Your task to perform on an android device: What is the news today? Image 0: 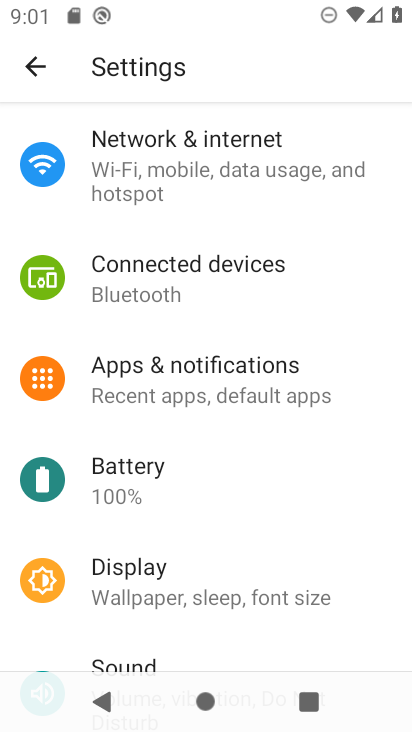
Step 0: press home button
Your task to perform on an android device: What is the news today? Image 1: 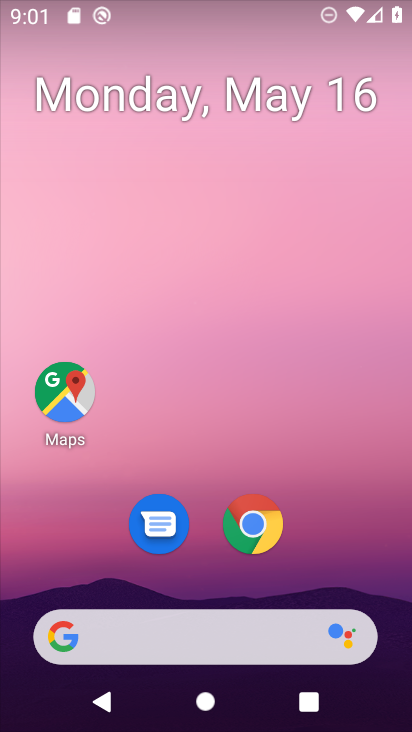
Step 1: click (196, 627)
Your task to perform on an android device: What is the news today? Image 2: 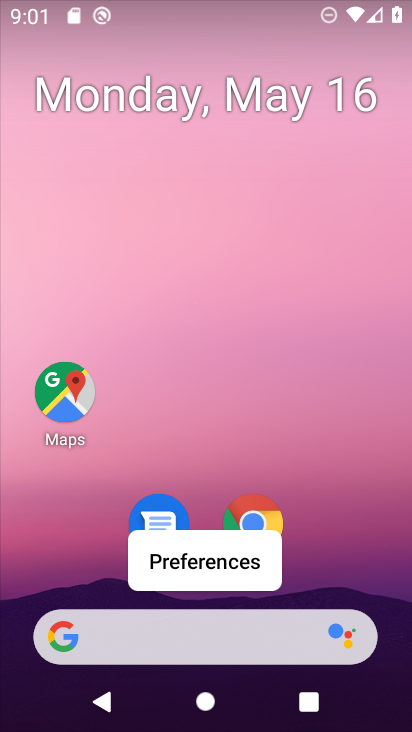
Step 2: click (196, 646)
Your task to perform on an android device: What is the news today? Image 3: 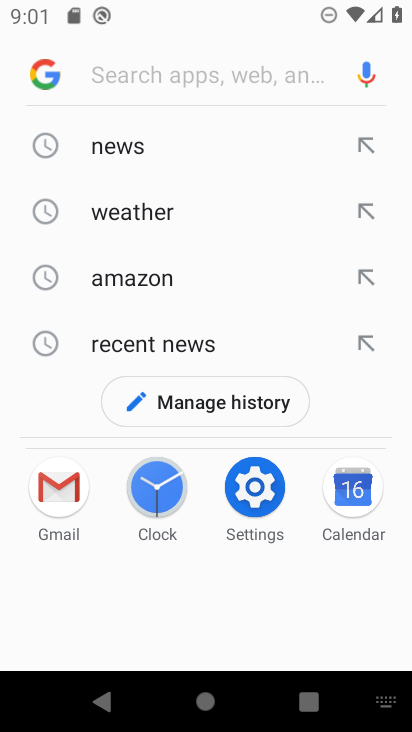
Step 3: click (110, 136)
Your task to perform on an android device: What is the news today? Image 4: 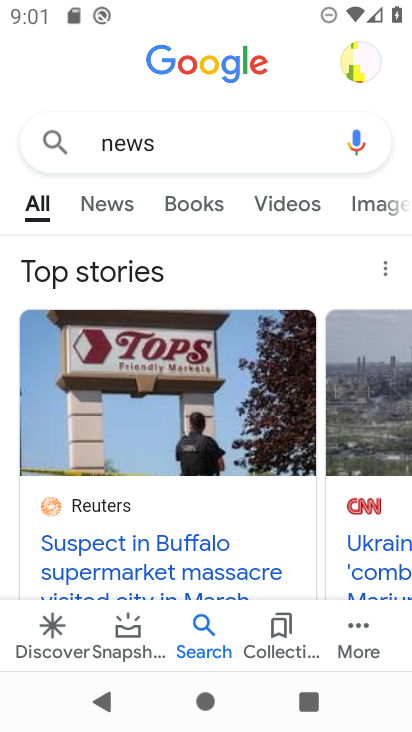
Step 4: click (105, 205)
Your task to perform on an android device: What is the news today? Image 5: 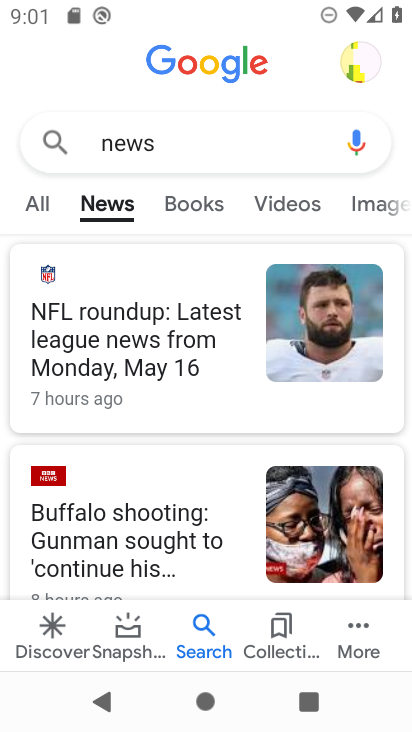
Step 5: click (131, 334)
Your task to perform on an android device: What is the news today? Image 6: 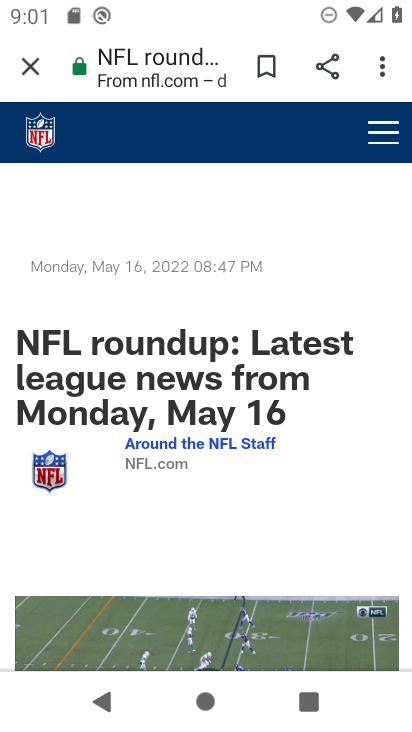
Step 6: task complete